Your task to perform on an android device: Show me popular videos on Youtube Image 0: 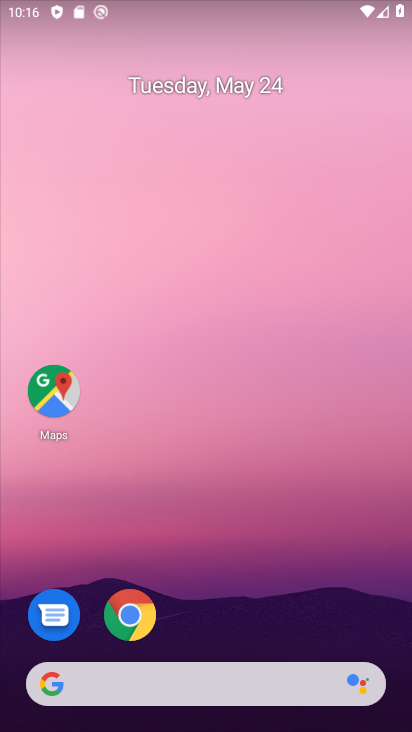
Step 0: drag from (332, 600) to (302, 84)
Your task to perform on an android device: Show me popular videos on Youtube Image 1: 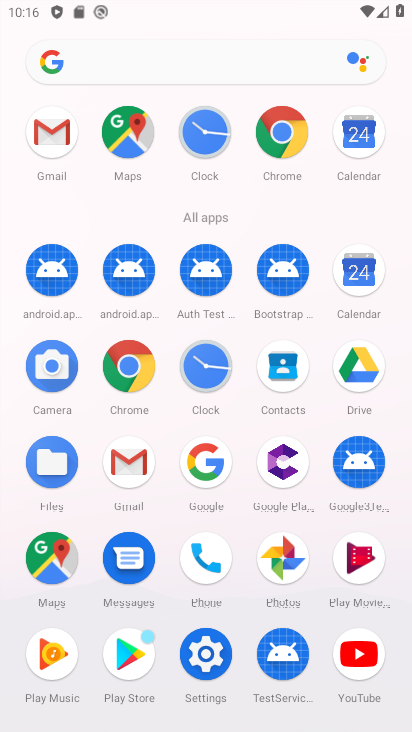
Step 1: click (345, 662)
Your task to perform on an android device: Show me popular videos on Youtube Image 2: 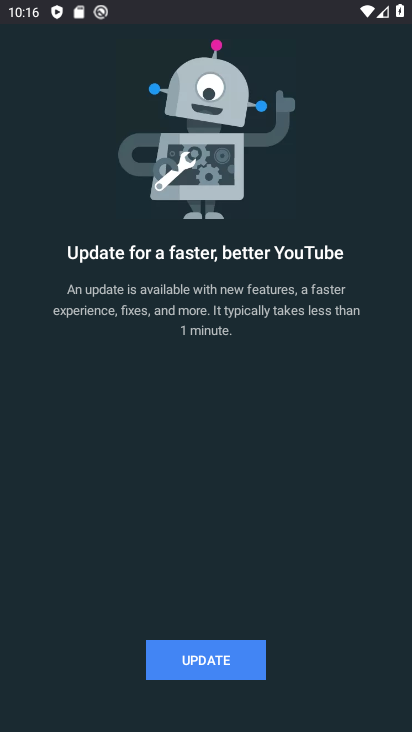
Step 2: click (222, 651)
Your task to perform on an android device: Show me popular videos on Youtube Image 3: 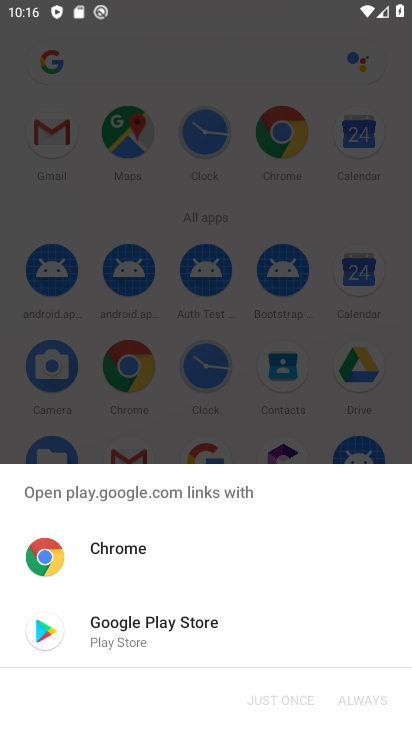
Step 3: click (205, 610)
Your task to perform on an android device: Show me popular videos on Youtube Image 4: 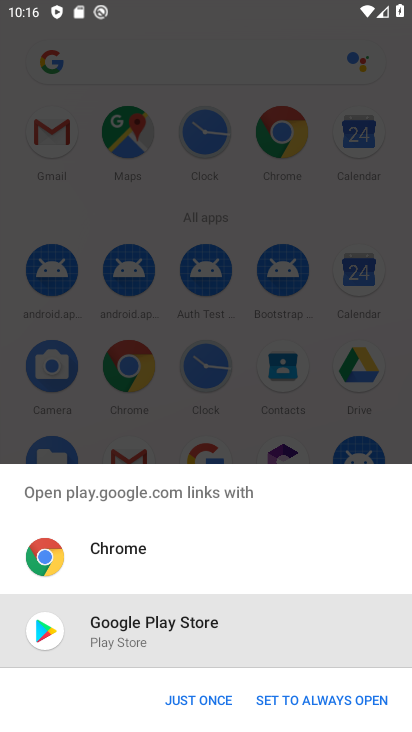
Step 4: click (204, 690)
Your task to perform on an android device: Show me popular videos on Youtube Image 5: 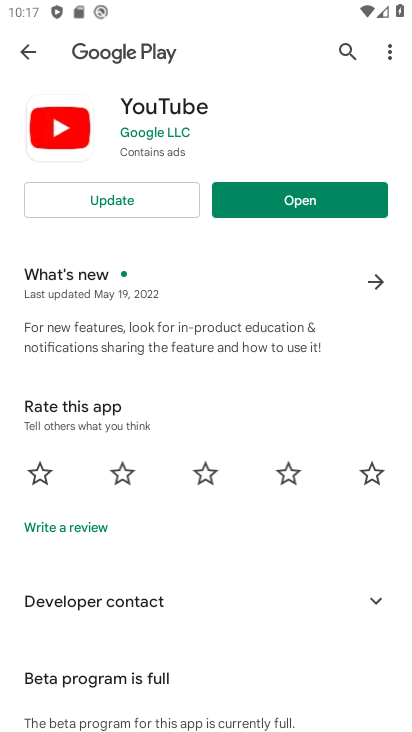
Step 5: click (113, 207)
Your task to perform on an android device: Show me popular videos on Youtube Image 6: 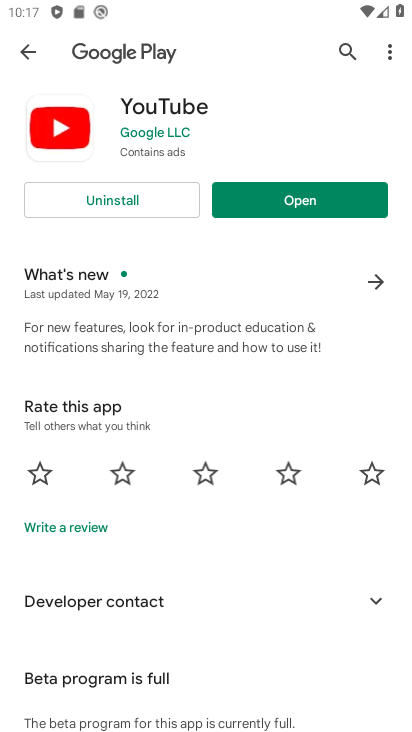
Step 6: click (294, 195)
Your task to perform on an android device: Show me popular videos on Youtube Image 7: 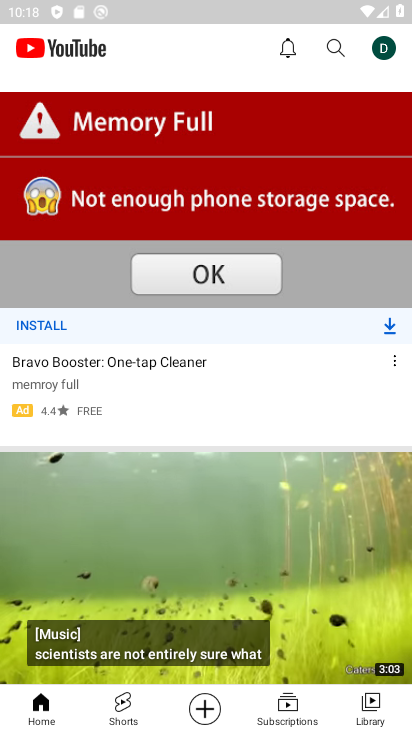
Step 7: click (335, 49)
Your task to perform on an android device: Show me popular videos on Youtube Image 8: 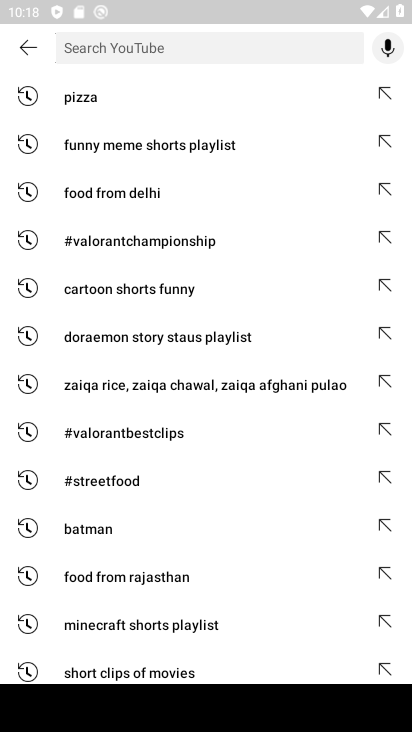
Step 8: type "Popular videos"
Your task to perform on an android device: Show me popular videos on Youtube Image 9: 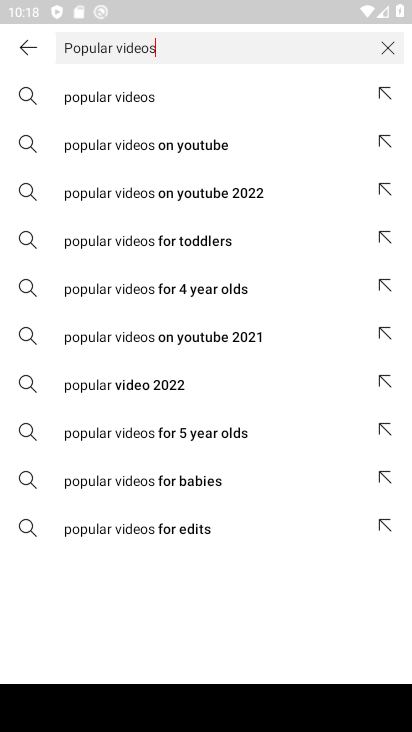
Step 9: click (148, 88)
Your task to perform on an android device: Show me popular videos on Youtube Image 10: 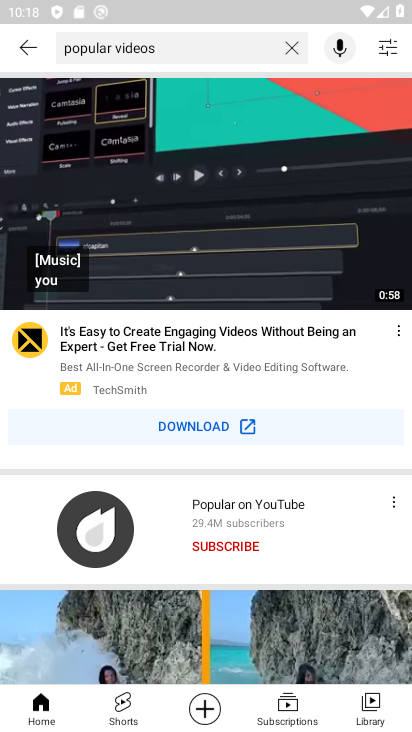
Step 10: click (205, 642)
Your task to perform on an android device: Show me popular videos on Youtube Image 11: 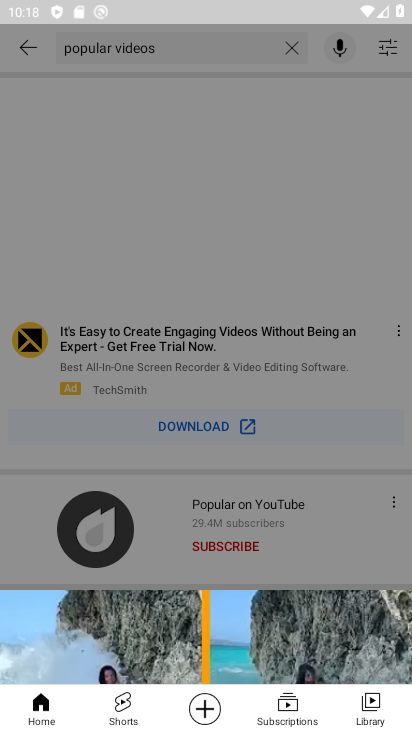
Step 11: click (173, 650)
Your task to perform on an android device: Show me popular videos on Youtube Image 12: 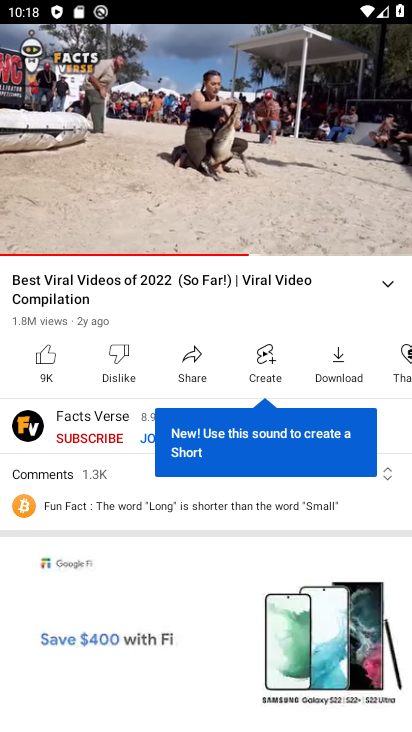
Step 12: task complete